Your task to perform on an android device: Open settings Image 0: 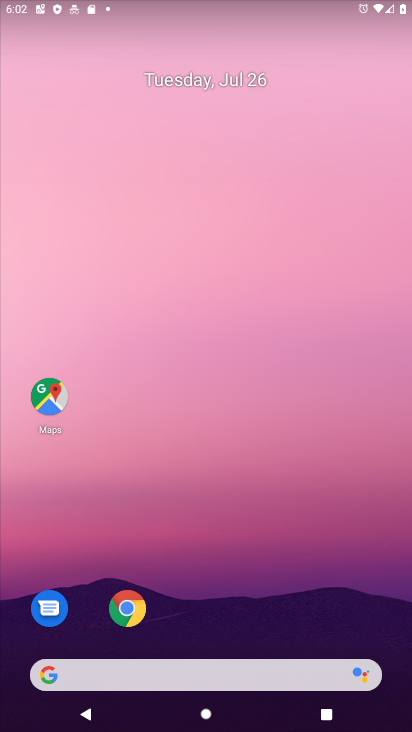
Step 0: press home button
Your task to perform on an android device: Open settings Image 1: 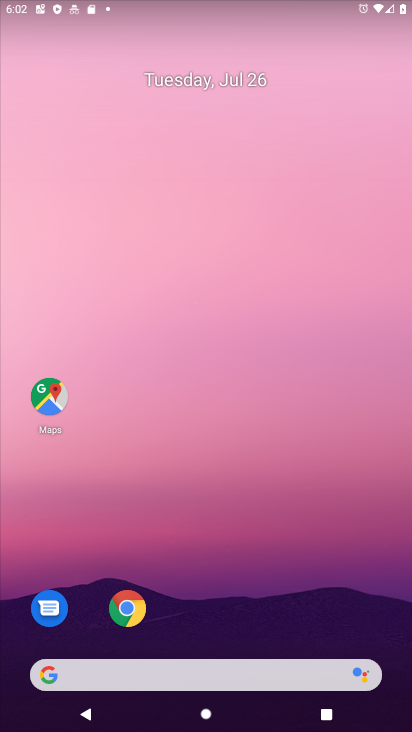
Step 1: drag from (214, 629) to (282, 0)
Your task to perform on an android device: Open settings Image 2: 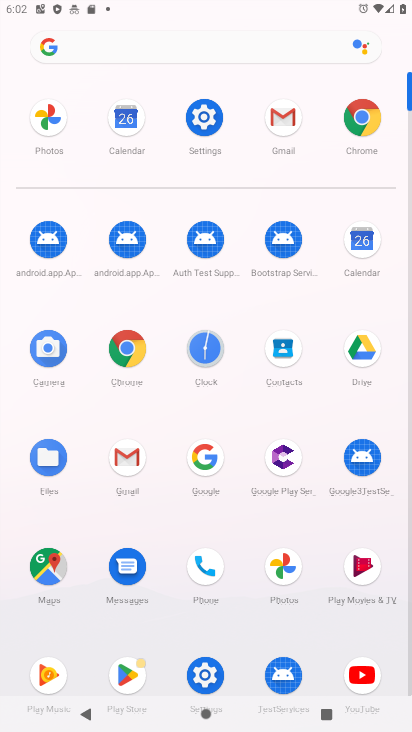
Step 2: click (198, 112)
Your task to perform on an android device: Open settings Image 3: 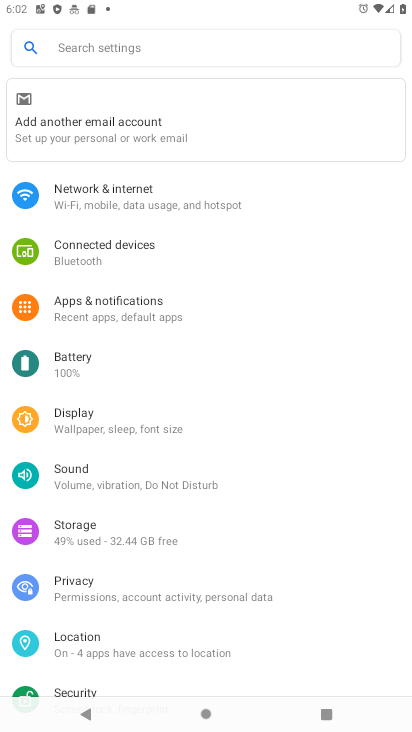
Step 3: task complete